Your task to perform on an android device: Open my contact list Image 0: 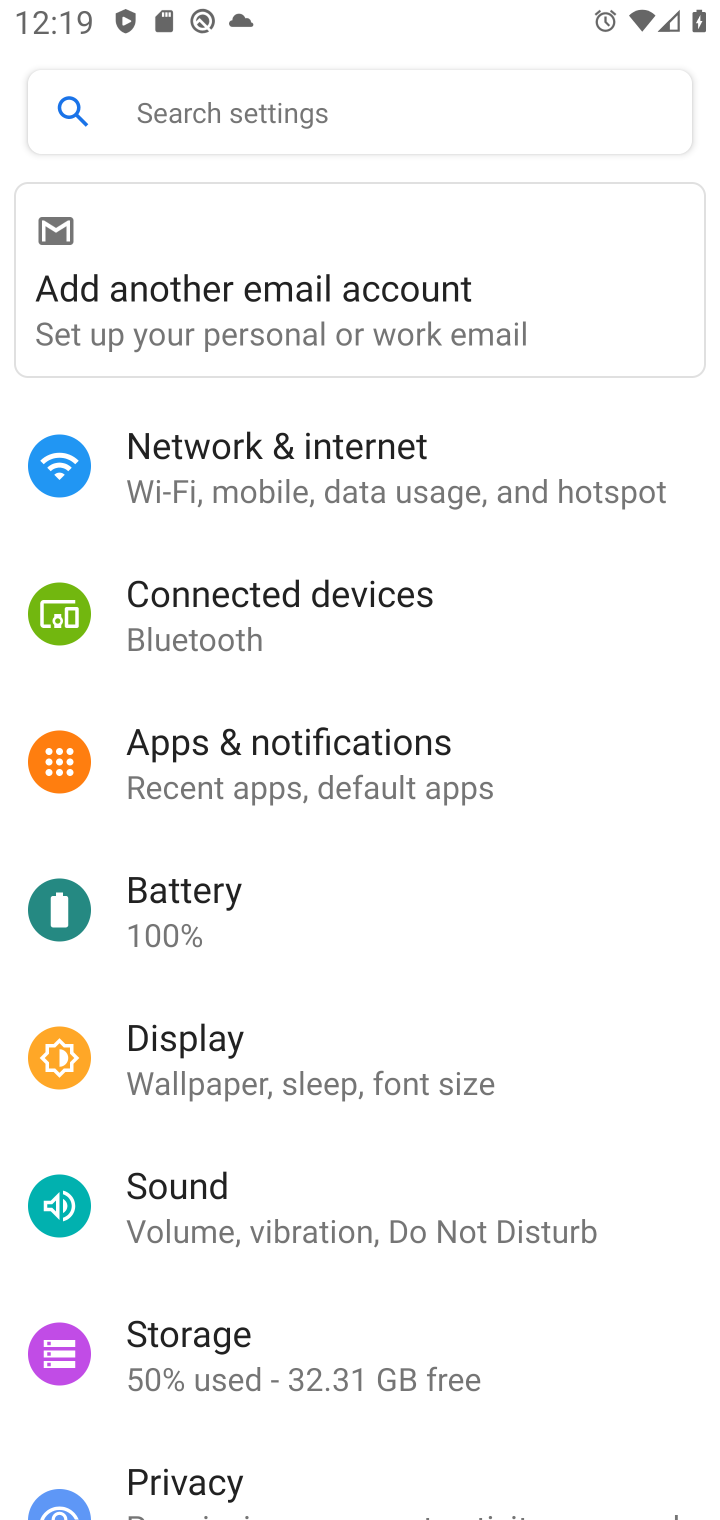
Step 0: press home button
Your task to perform on an android device: Open my contact list Image 1: 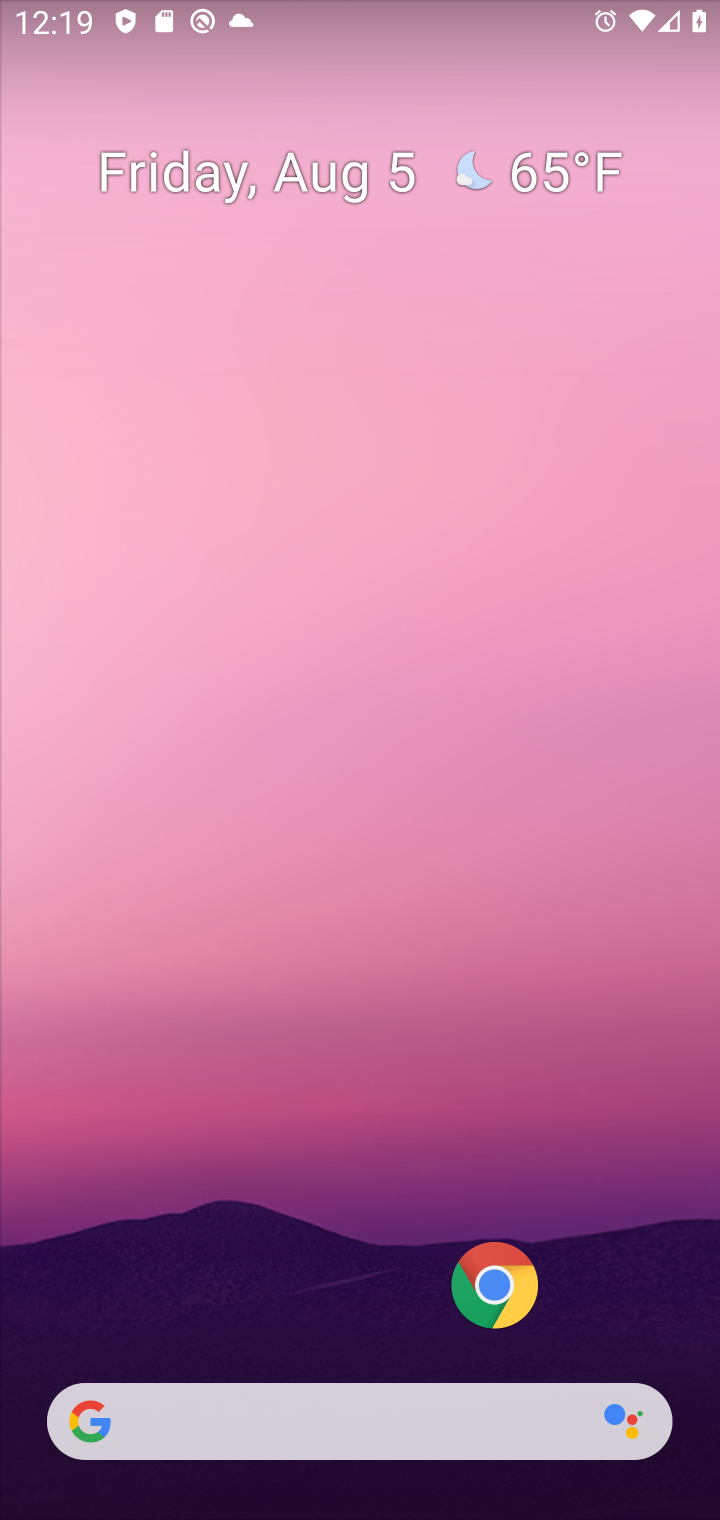
Step 1: drag from (323, 1325) to (419, 181)
Your task to perform on an android device: Open my contact list Image 2: 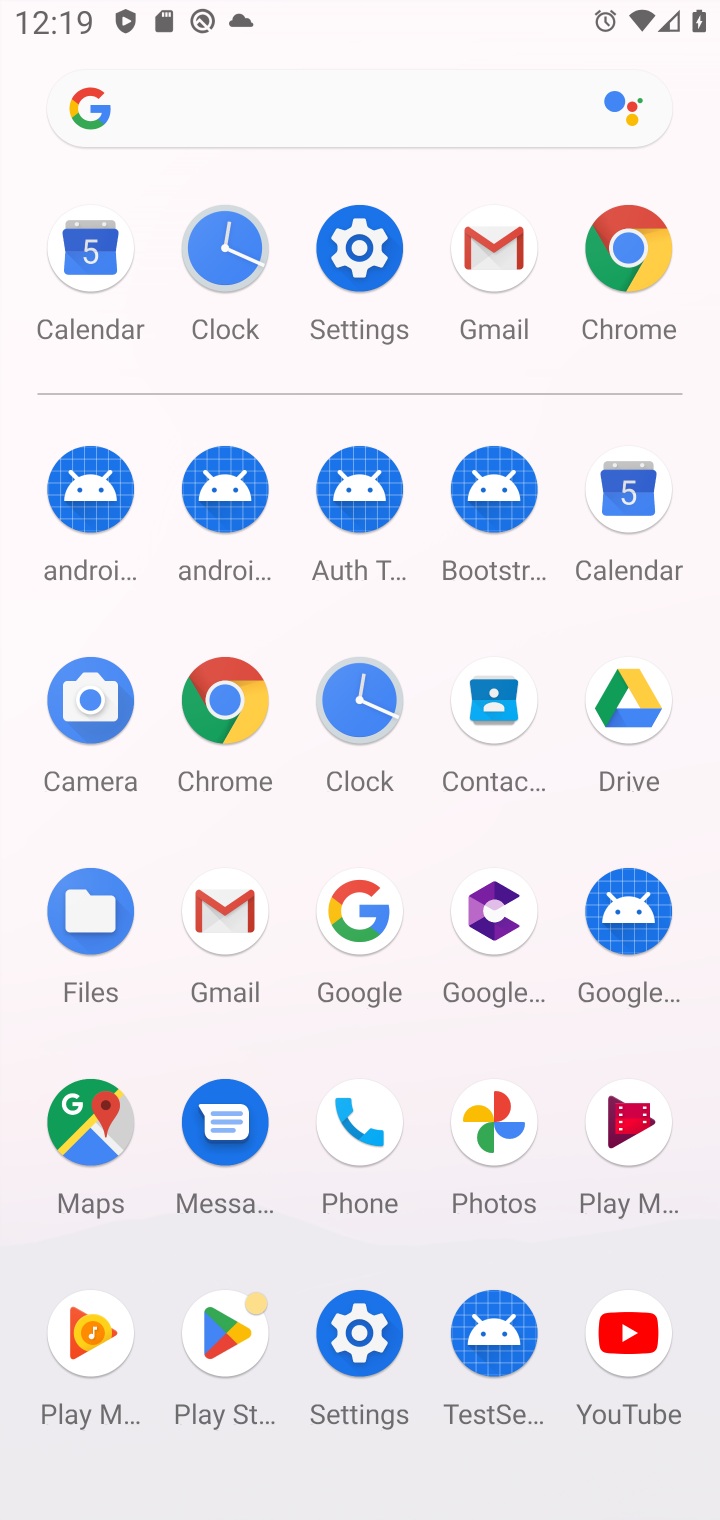
Step 2: click (491, 708)
Your task to perform on an android device: Open my contact list Image 3: 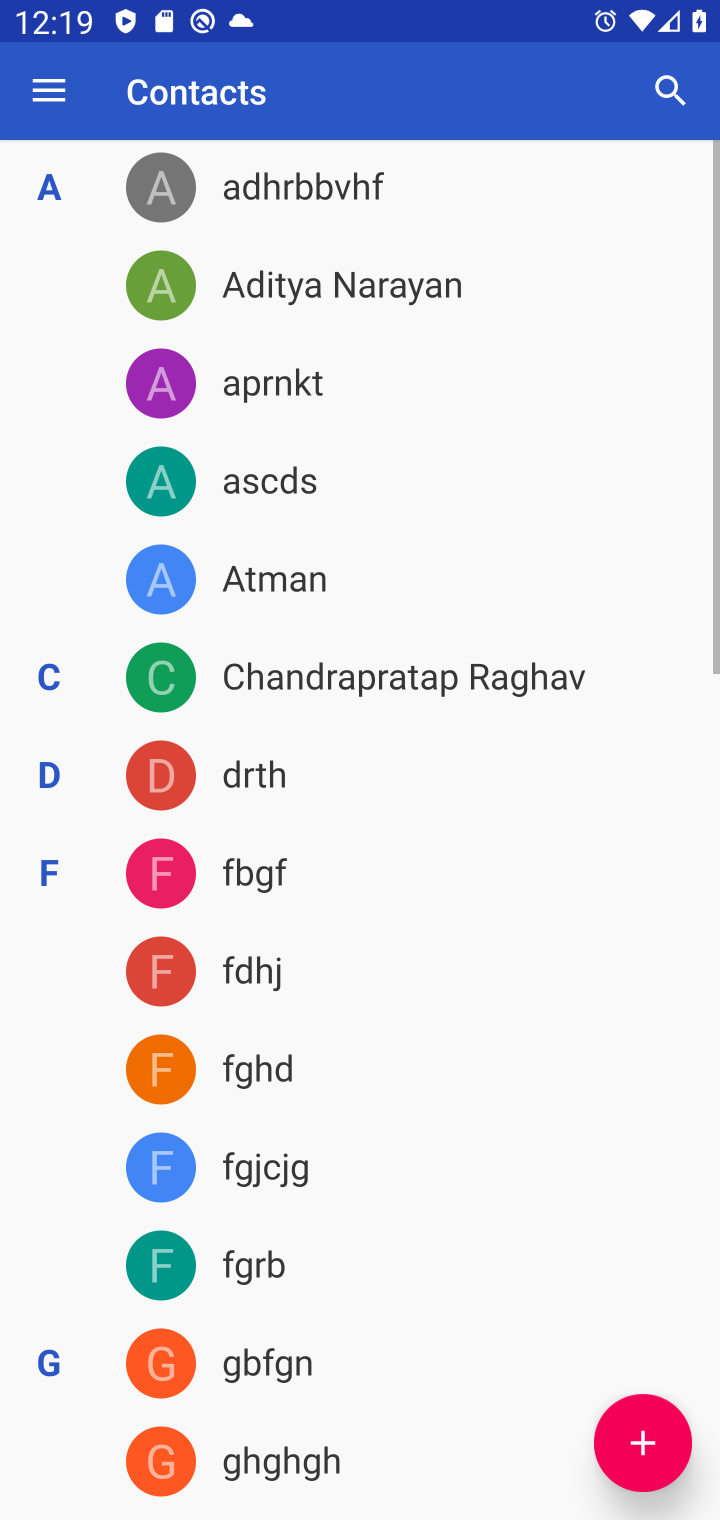
Step 3: task complete